Your task to perform on an android device: toggle location history Image 0: 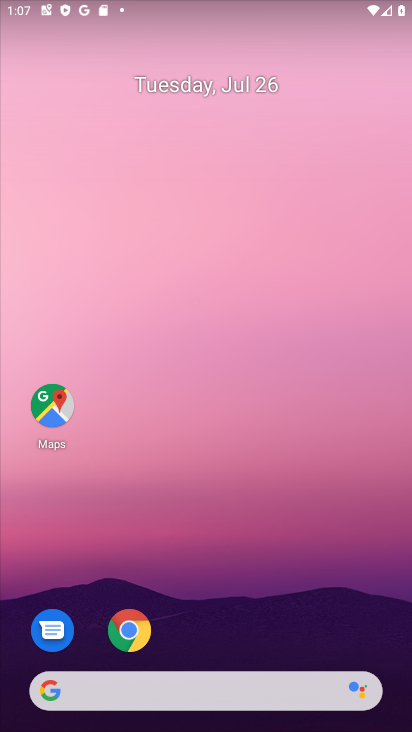
Step 0: drag from (200, 633) to (208, 169)
Your task to perform on an android device: toggle location history Image 1: 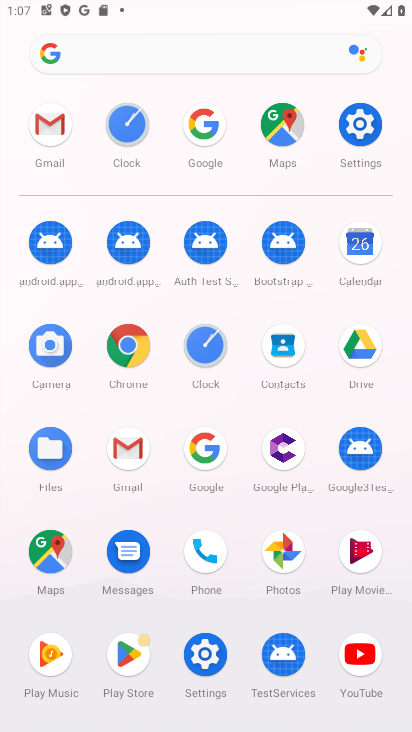
Step 1: click (352, 130)
Your task to perform on an android device: toggle location history Image 2: 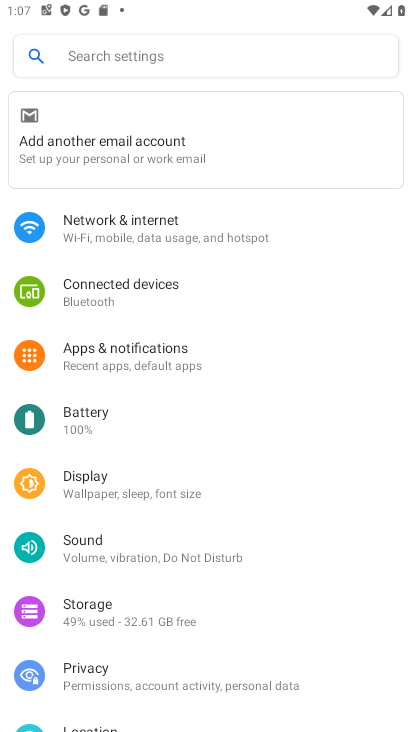
Step 2: click (67, 730)
Your task to perform on an android device: toggle location history Image 3: 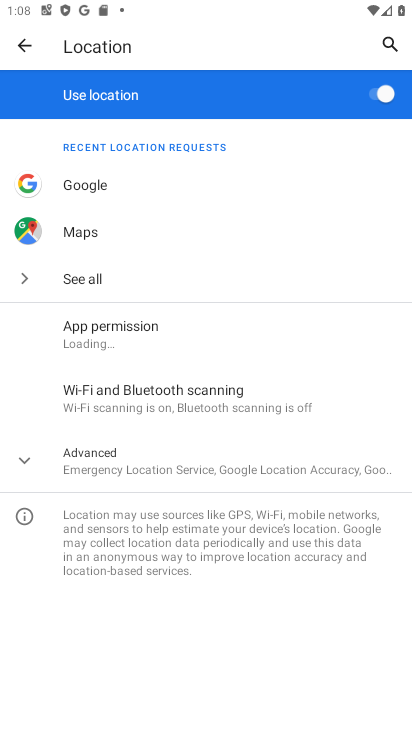
Step 3: click (170, 477)
Your task to perform on an android device: toggle location history Image 4: 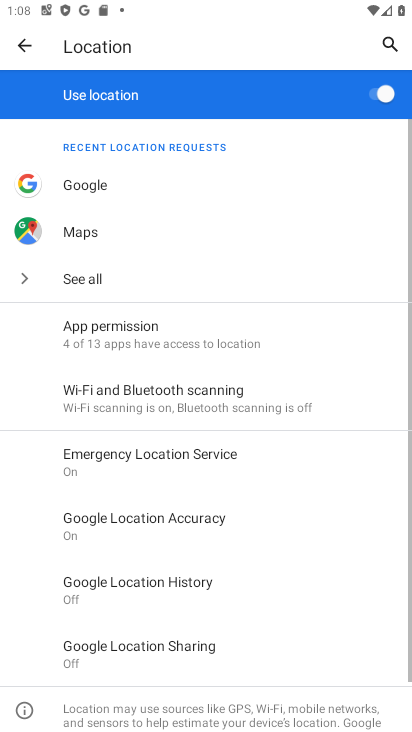
Step 4: click (95, 584)
Your task to perform on an android device: toggle location history Image 5: 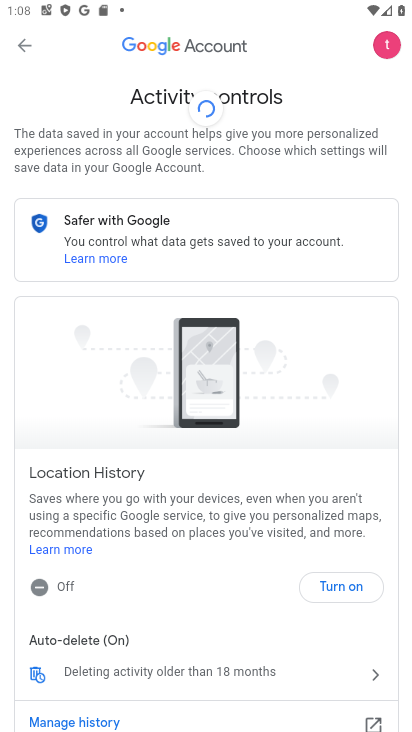
Step 5: click (312, 589)
Your task to perform on an android device: toggle location history Image 6: 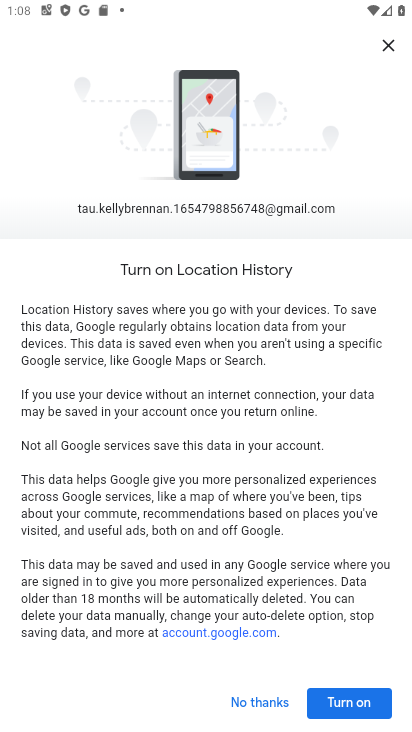
Step 6: click (349, 708)
Your task to perform on an android device: toggle location history Image 7: 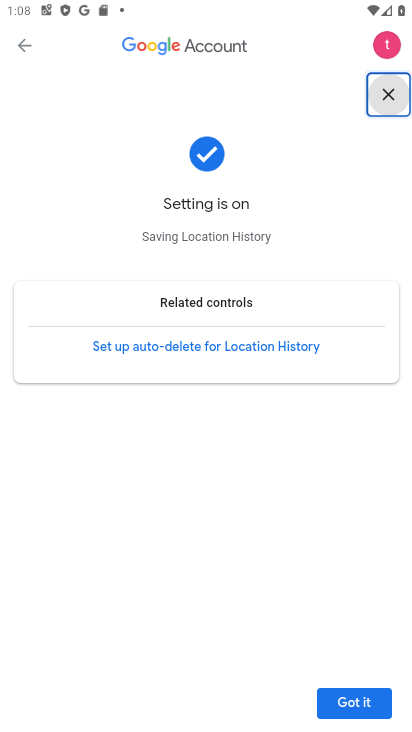
Step 7: click (349, 708)
Your task to perform on an android device: toggle location history Image 8: 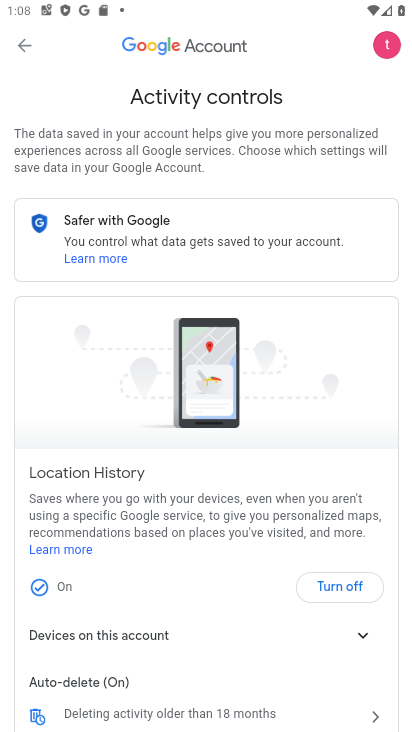
Step 8: task complete